Your task to perform on an android device: check data usage Image 0: 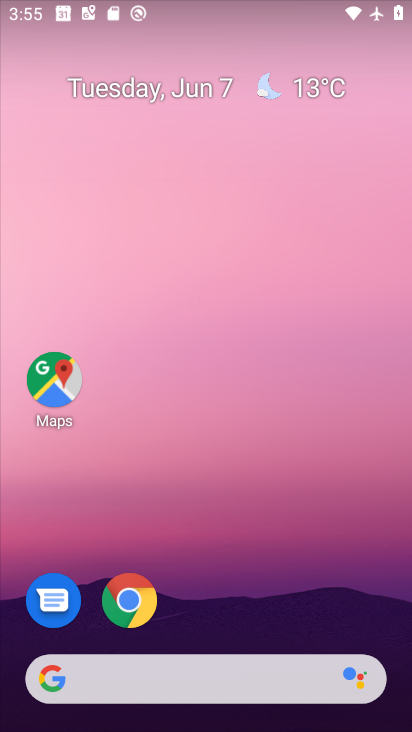
Step 0: drag from (347, 571) to (237, 108)
Your task to perform on an android device: check data usage Image 1: 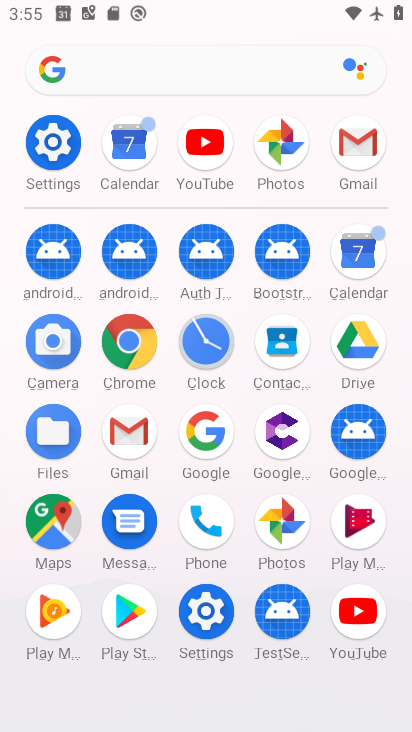
Step 1: click (51, 144)
Your task to perform on an android device: check data usage Image 2: 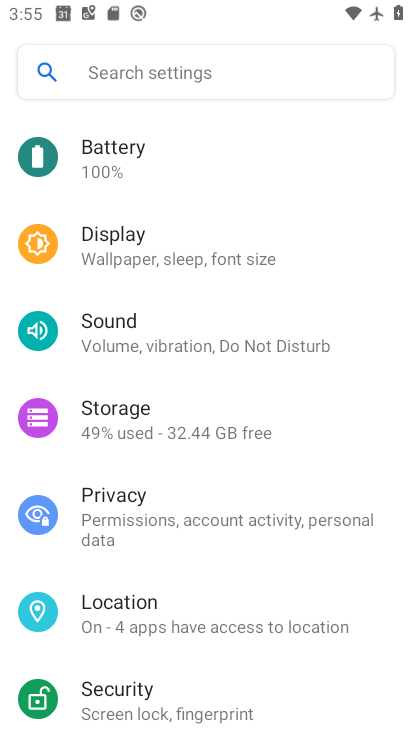
Step 2: drag from (241, 206) to (269, 522)
Your task to perform on an android device: check data usage Image 3: 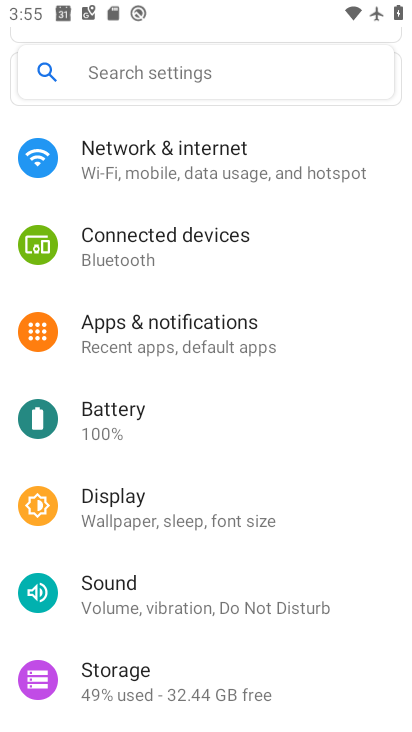
Step 3: click (146, 142)
Your task to perform on an android device: check data usage Image 4: 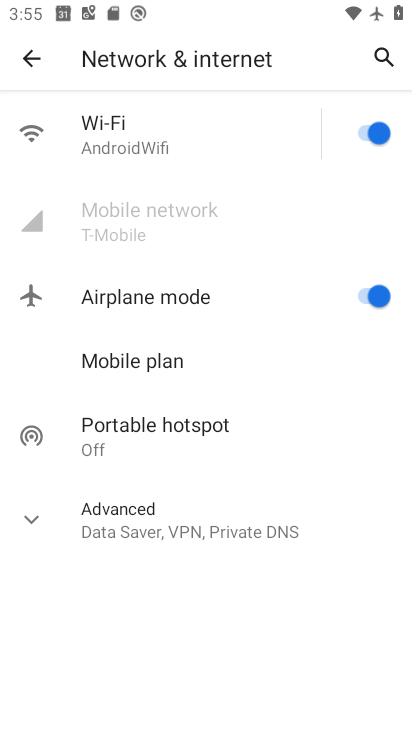
Step 4: click (170, 522)
Your task to perform on an android device: check data usage Image 5: 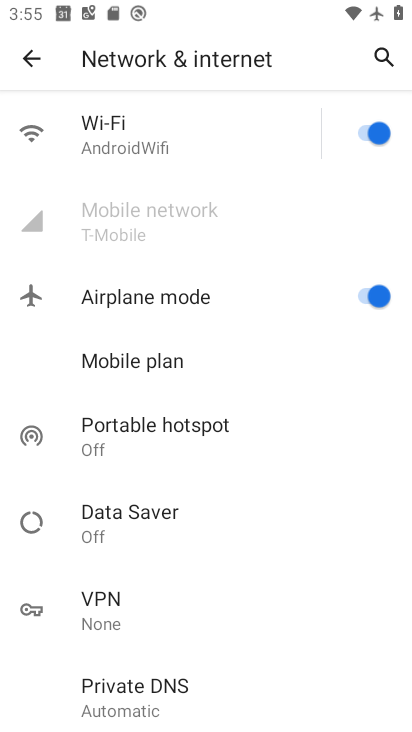
Step 5: drag from (195, 569) to (226, 192)
Your task to perform on an android device: check data usage Image 6: 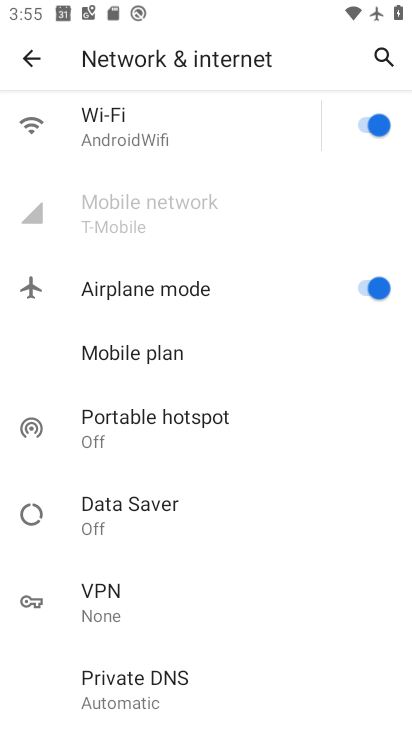
Step 6: click (91, 118)
Your task to perform on an android device: check data usage Image 7: 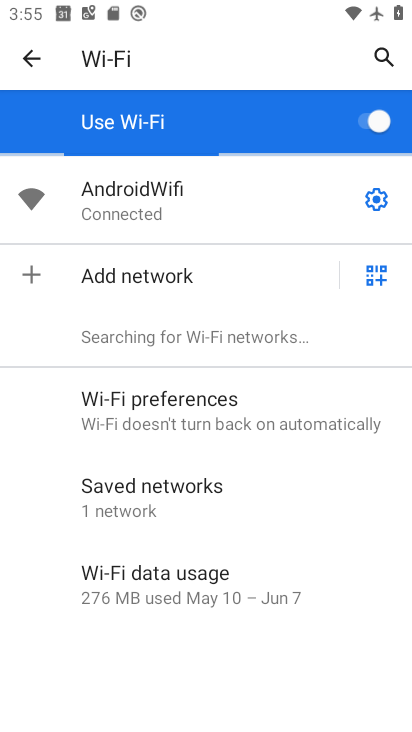
Step 7: click (188, 579)
Your task to perform on an android device: check data usage Image 8: 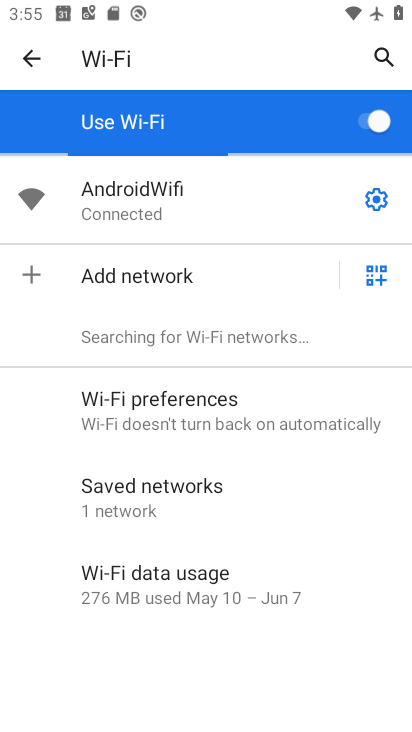
Step 8: click (183, 591)
Your task to perform on an android device: check data usage Image 9: 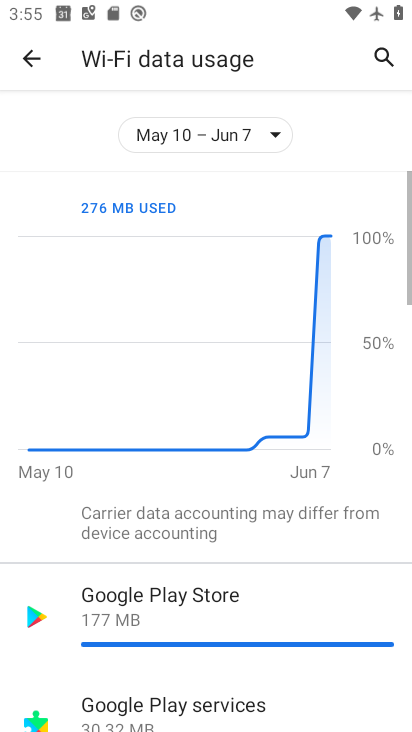
Step 9: task complete